Your task to perform on an android device: find snoozed emails in the gmail app Image 0: 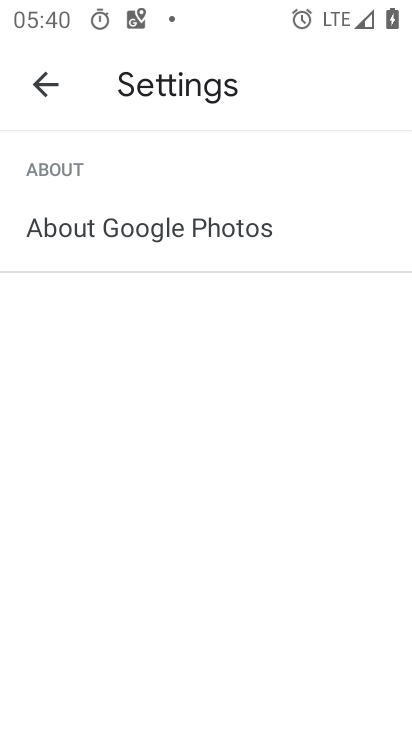
Step 0: press home button
Your task to perform on an android device: find snoozed emails in the gmail app Image 1: 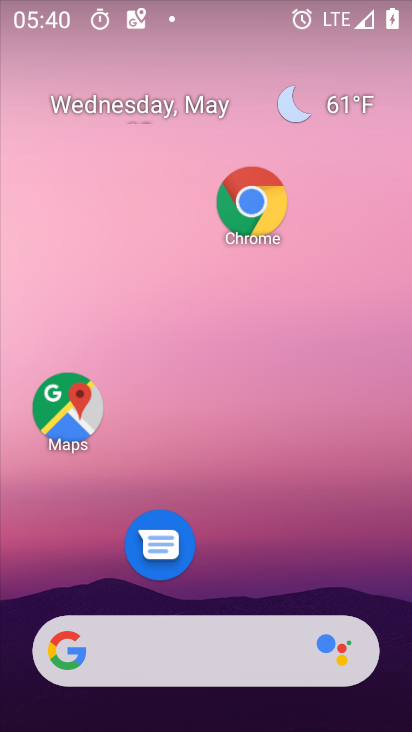
Step 1: drag from (257, 620) to (234, 356)
Your task to perform on an android device: find snoozed emails in the gmail app Image 2: 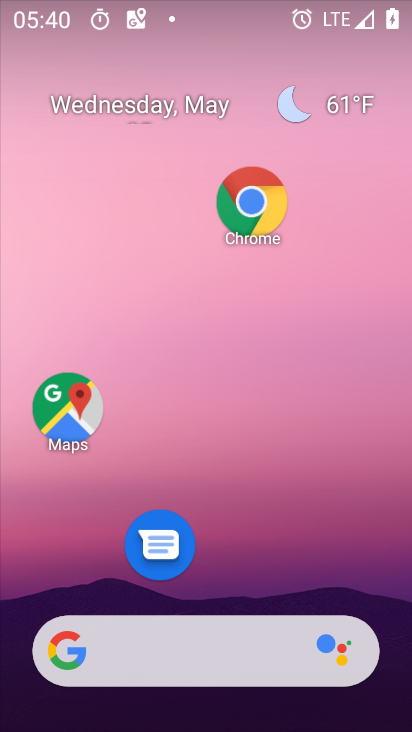
Step 2: drag from (196, 593) to (169, 248)
Your task to perform on an android device: find snoozed emails in the gmail app Image 3: 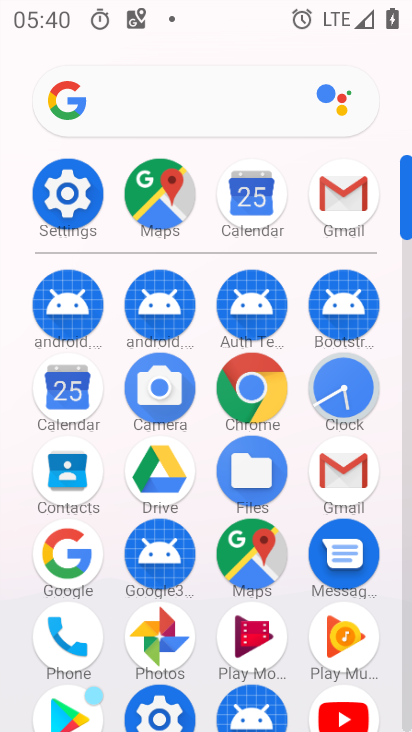
Step 3: click (347, 474)
Your task to perform on an android device: find snoozed emails in the gmail app Image 4: 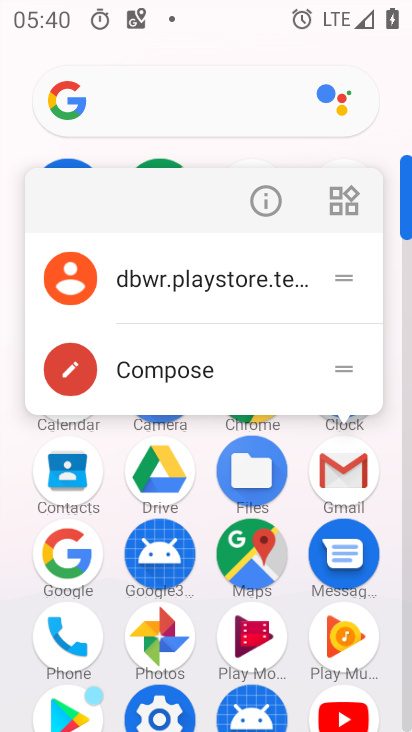
Step 4: click (337, 468)
Your task to perform on an android device: find snoozed emails in the gmail app Image 5: 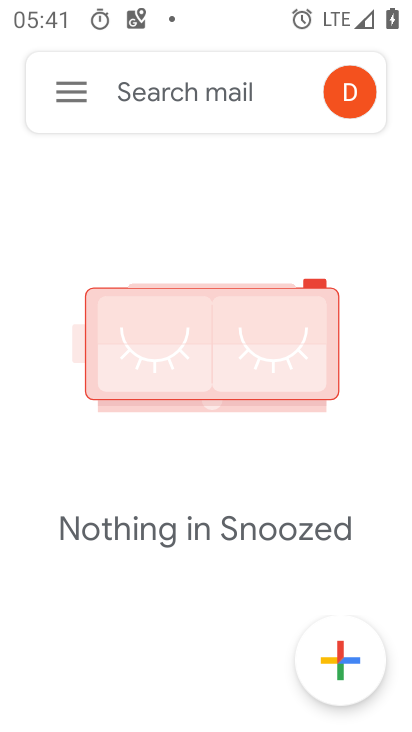
Step 5: click (59, 96)
Your task to perform on an android device: find snoozed emails in the gmail app Image 6: 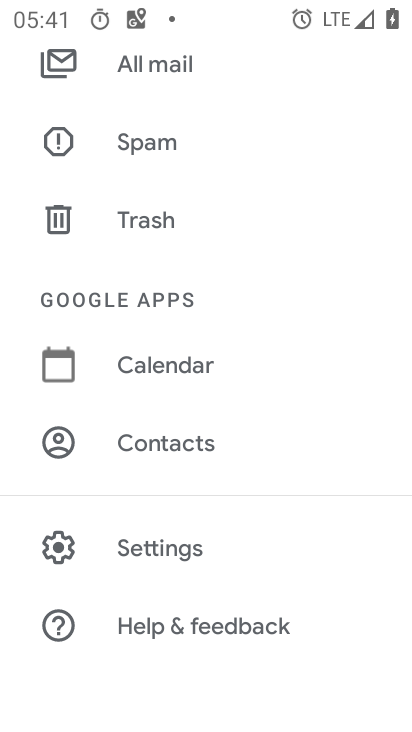
Step 6: click (160, 488)
Your task to perform on an android device: find snoozed emails in the gmail app Image 7: 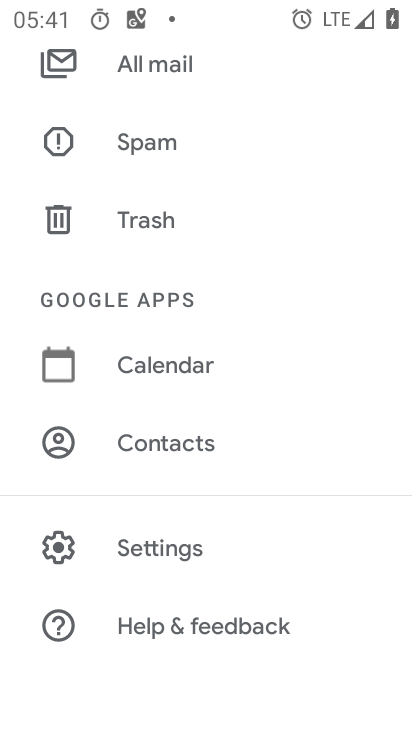
Step 7: drag from (152, 106) to (203, 574)
Your task to perform on an android device: find snoozed emails in the gmail app Image 8: 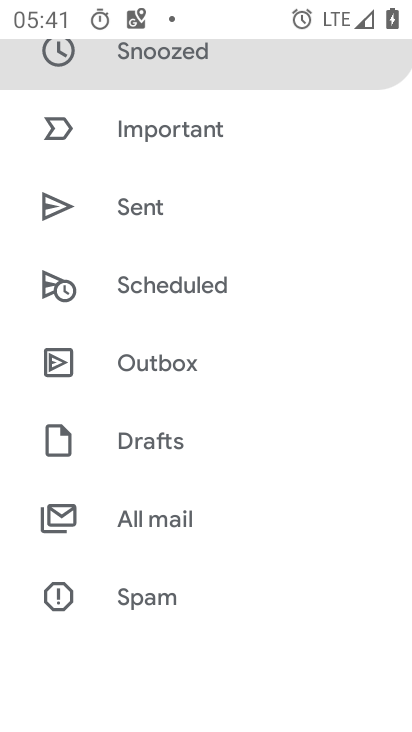
Step 8: click (190, 550)
Your task to perform on an android device: find snoozed emails in the gmail app Image 9: 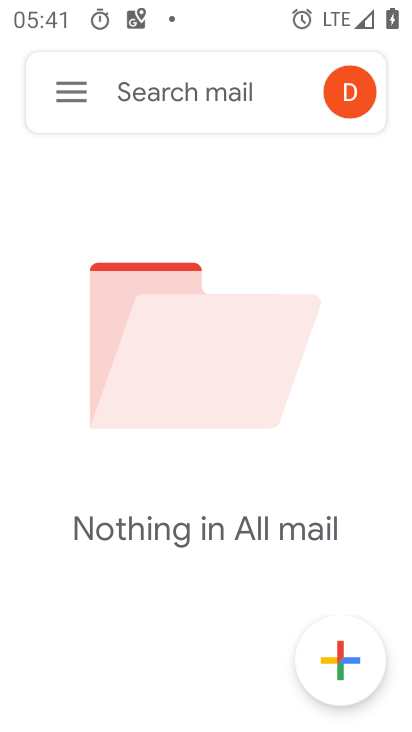
Step 9: click (75, 101)
Your task to perform on an android device: find snoozed emails in the gmail app Image 10: 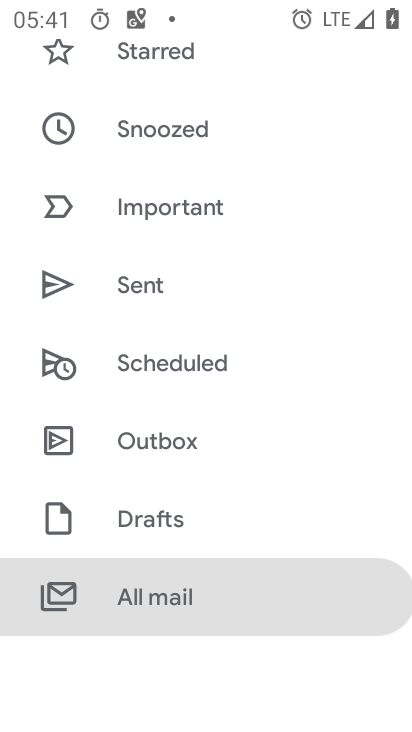
Step 10: click (189, 144)
Your task to perform on an android device: find snoozed emails in the gmail app Image 11: 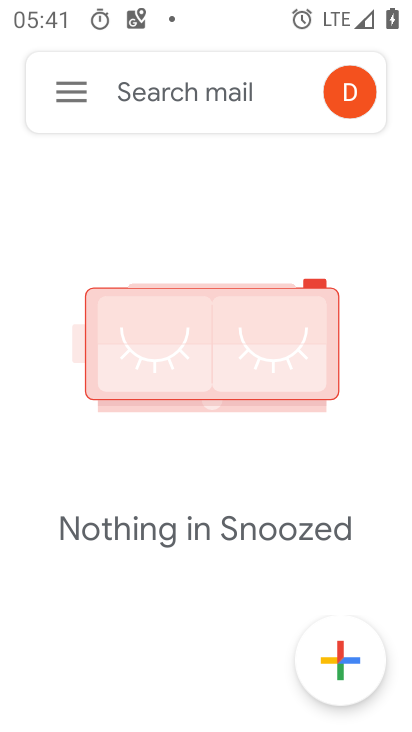
Step 11: task complete